Your task to perform on an android device: change text size in settings app Image 0: 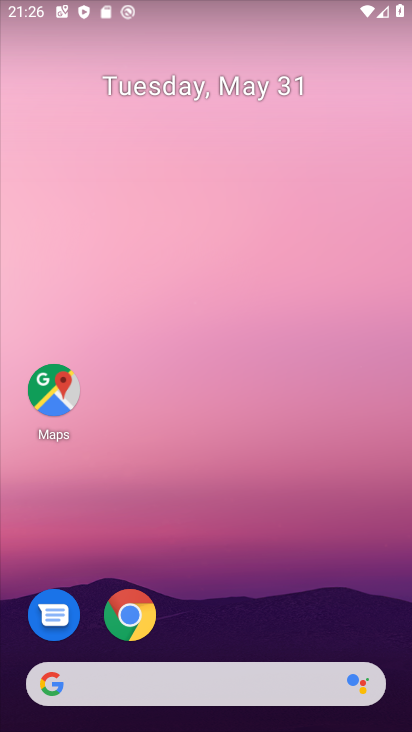
Step 0: drag from (228, 628) to (199, 192)
Your task to perform on an android device: change text size in settings app Image 1: 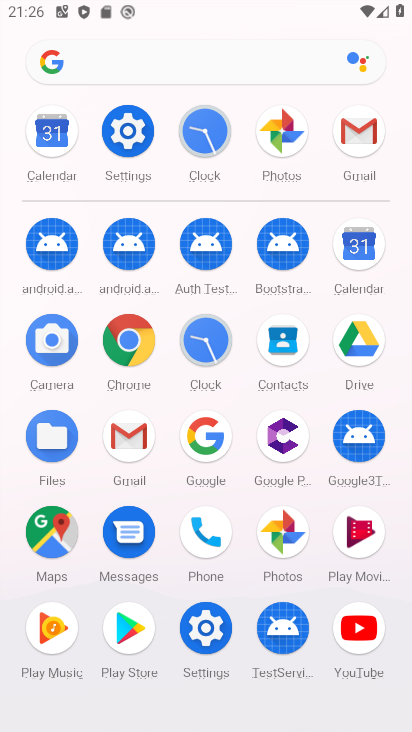
Step 1: click (117, 140)
Your task to perform on an android device: change text size in settings app Image 2: 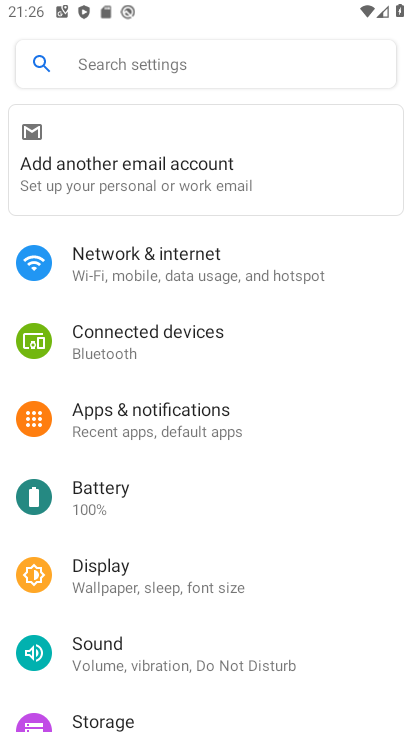
Step 2: click (173, 587)
Your task to perform on an android device: change text size in settings app Image 3: 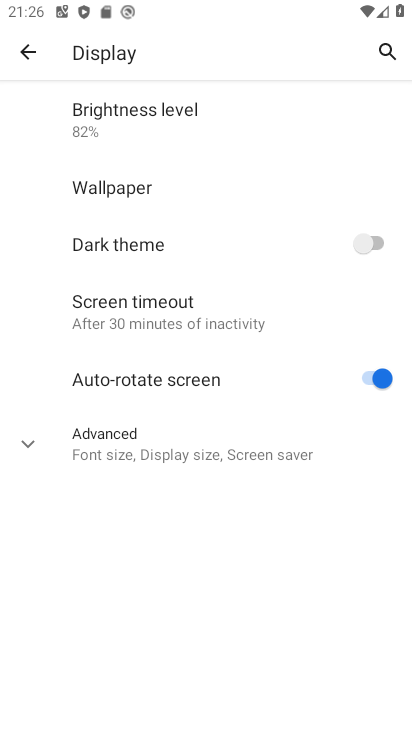
Step 3: click (150, 439)
Your task to perform on an android device: change text size in settings app Image 4: 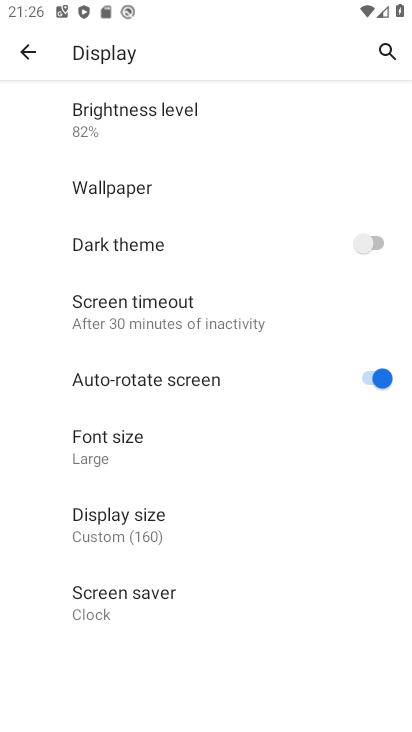
Step 4: click (110, 437)
Your task to perform on an android device: change text size in settings app Image 5: 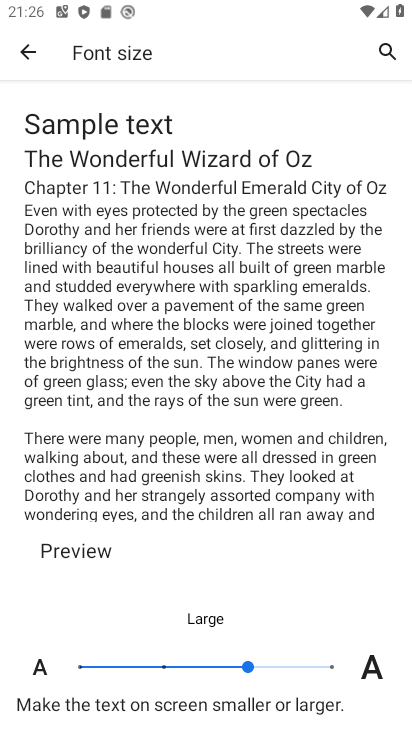
Step 5: click (163, 661)
Your task to perform on an android device: change text size in settings app Image 6: 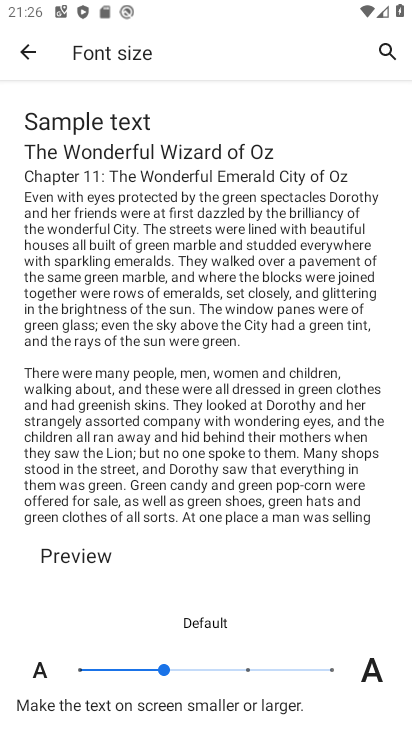
Step 6: task complete